Your task to perform on an android device: Search for Italian restaurants on Maps Image 0: 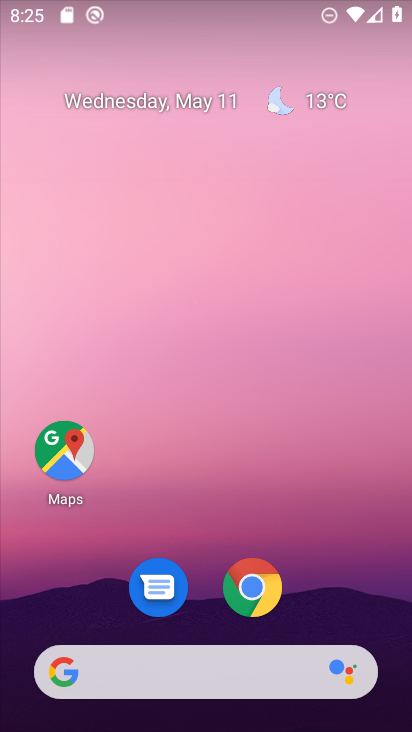
Step 0: click (92, 454)
Your task to perform on an android device: Search for Italian restaurants on Maps Image 1: 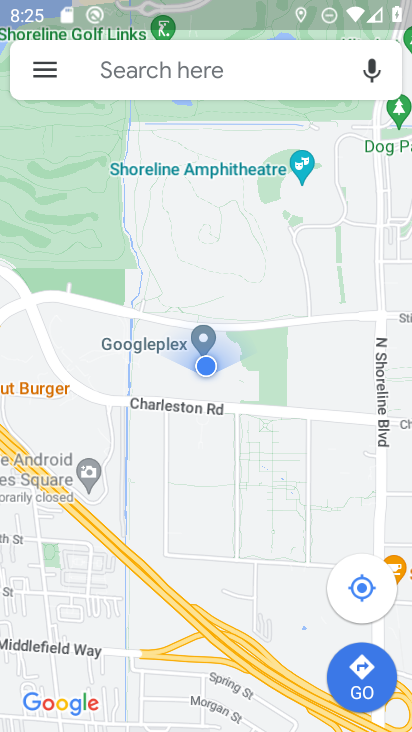
Step 1: click (160, 64)
Your task to perform on an android device: Search for Italian restaurants on Maps Image 2: 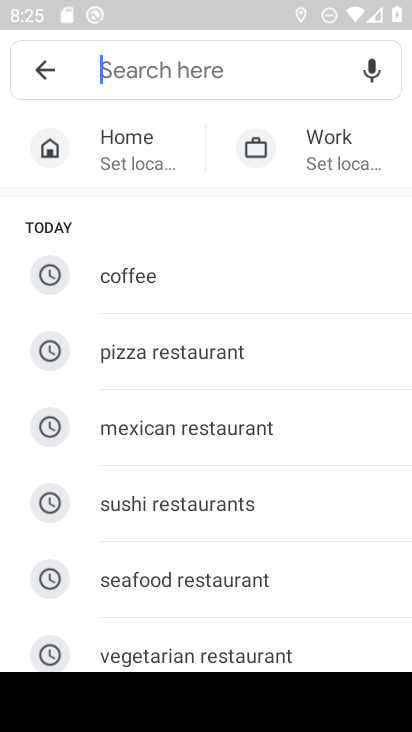
Step 2: drag from (260, 584) to (230, 404)
Your task to perform on an android device: Search for Italian restaurants on Maps Image 3: 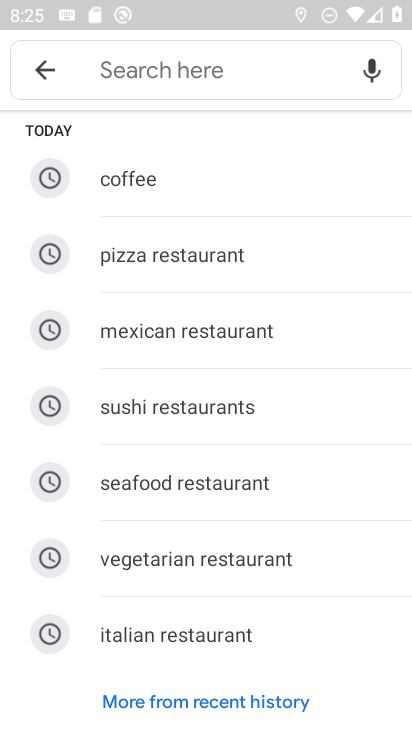
Step 3: click (158, 643)
Your task to perform on an android device: Search for Italian restaurants on Maps Image 4: 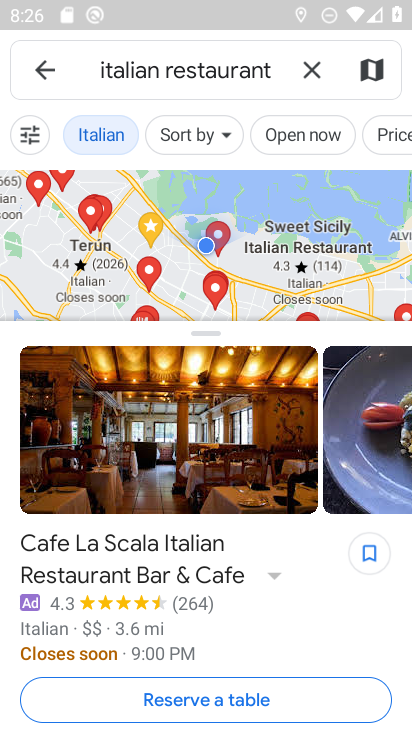
Step 4: task complete